Your task to perform on an android device: turn on showing notifications on the lock screen Image 0: 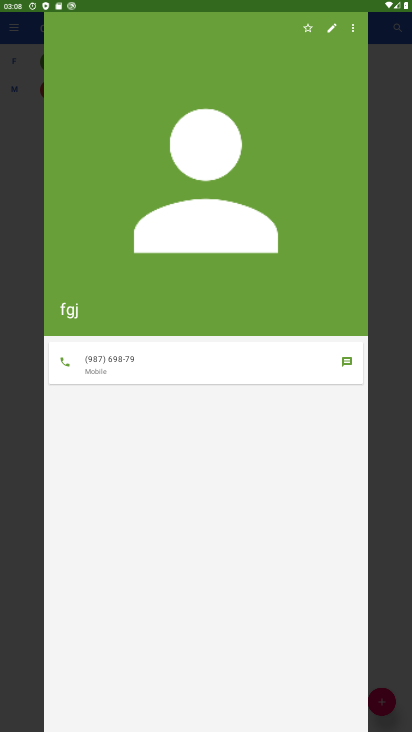
Step 0: press home button
Your task to perform on an android device: turn on showing notifications on the lock screen Image 1: 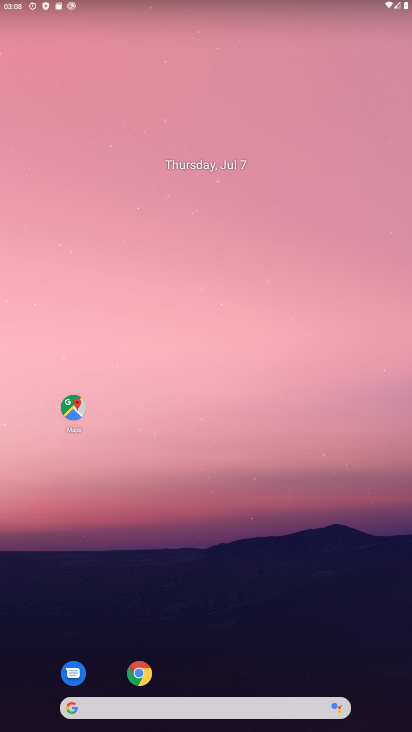
Step 1: drag from (214, 654) to (241, 162)
Your task to perform on an android device: turn on showing notifications on the lock screen Image 2: 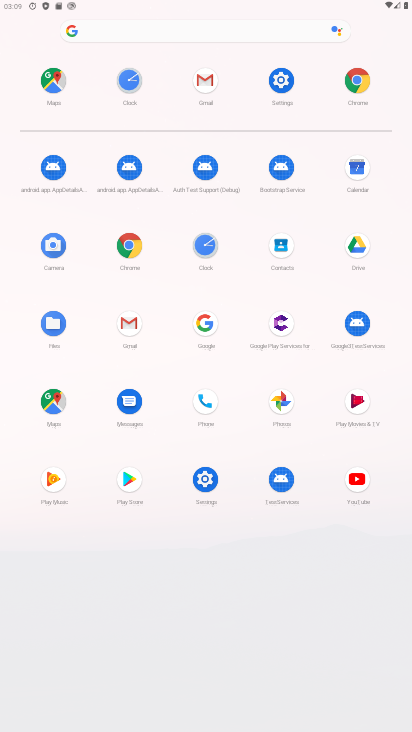
Step 2: click (271, 75)
Your task to perform on an android device: turn on showing notifications on the lock screen Image 3: 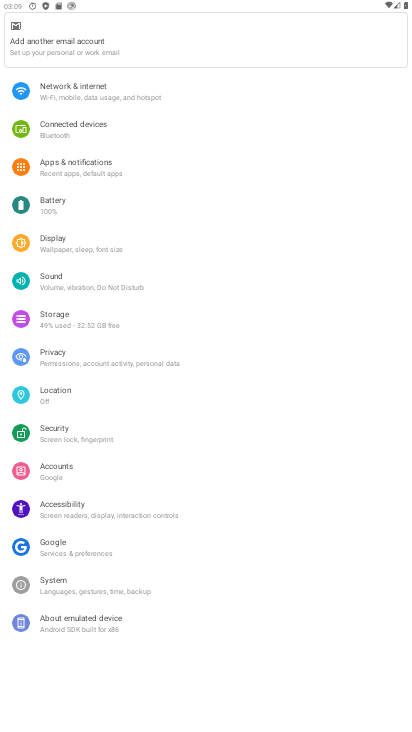
Step 3: click (129, 175)
Your task to perform on an android device: turn on showing notifications on the lock screen Image 4: 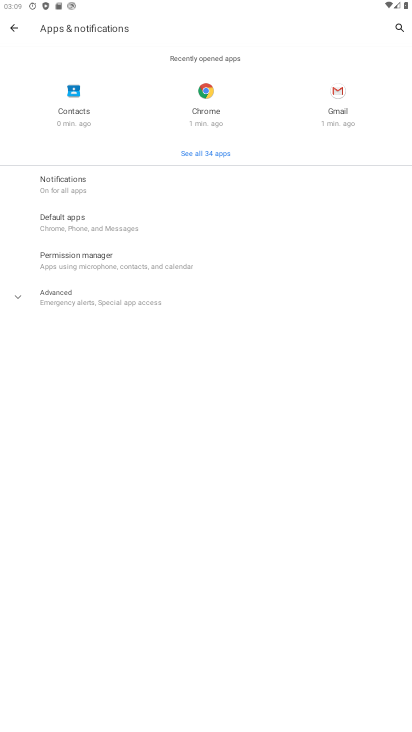
Step 4: click (111, 190)
Your task to perform on an android device: turn on showing notifications on the lock screen Image 5: 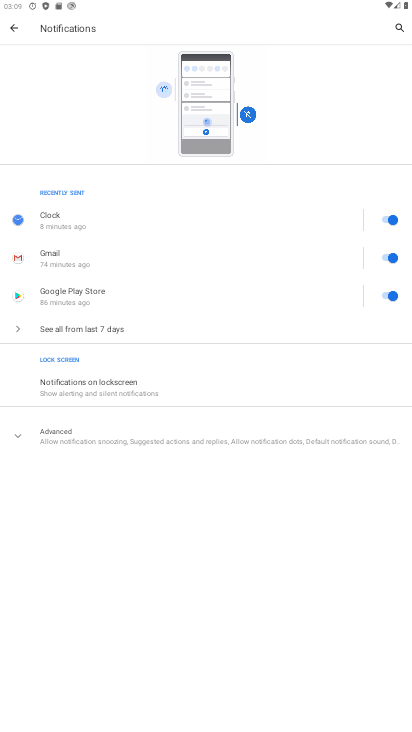
Step 5: click (179, 391)
Your task to perform on an android device: turn on showing notifications on the lock screen Image 6: 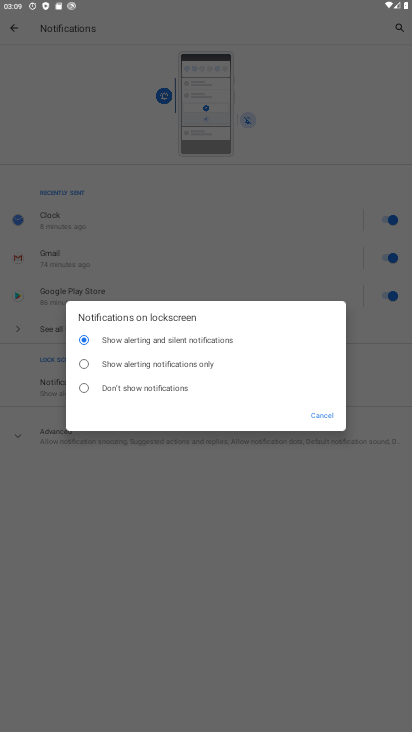
Step 6: task complete